Your task to perform on an android device: Go to ESPN.com Image 0: 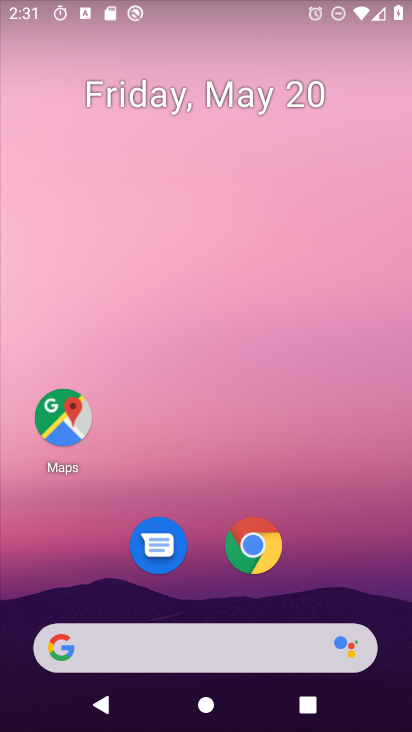
Step 0: drag from (308, 625) to (230, 40)
Your task to perform on an android device: Go to ESPN.com Image 1: 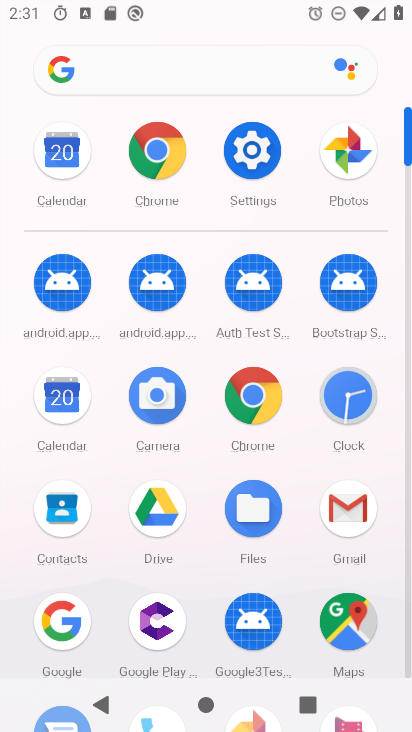
Step 1: click (263, 405)
Your task to perform on an android device: Go to ESPN.com Image 2: 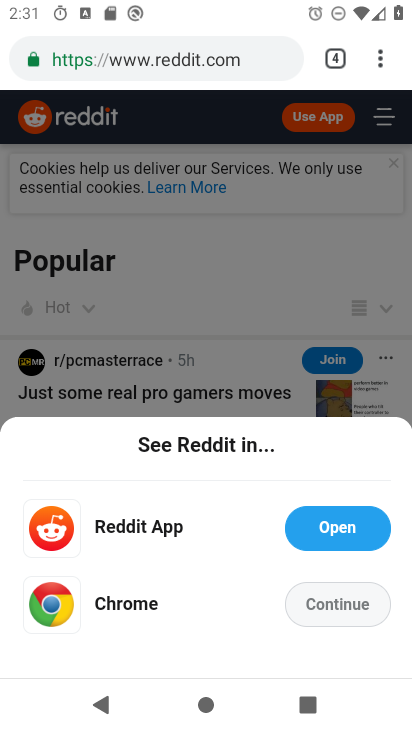
Step 2: click (128, 56)
Your task to perform on an android device: Go to ESPN.com Image 3: 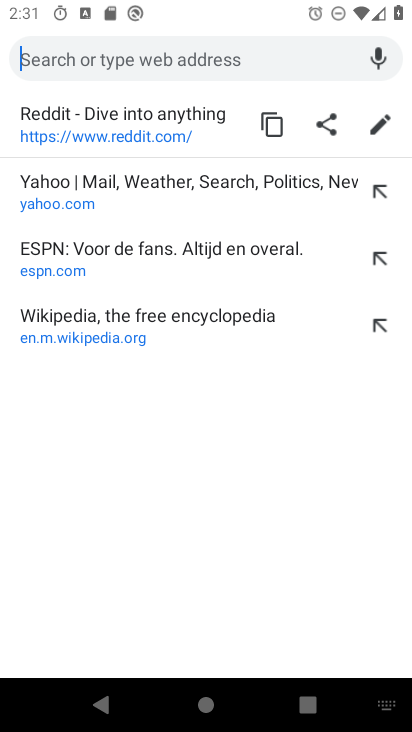
Step 3: type "espn.com"
Your task to perform on an android device: Go to ESPN.com Image 4: 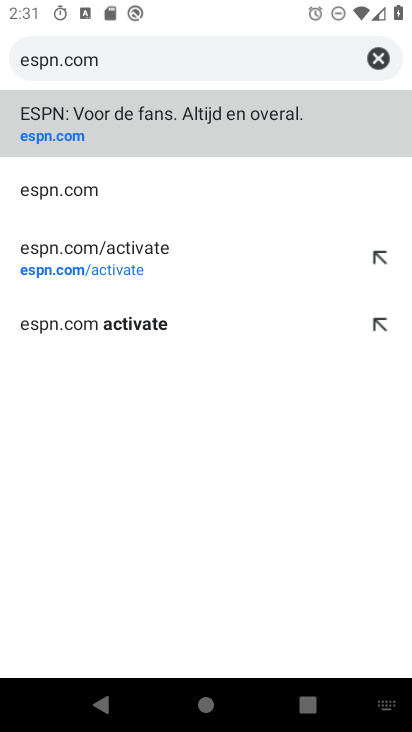
Step 4: click (81, 131)
Your task to perform on an android device: Go to ESPN.com Image 5: 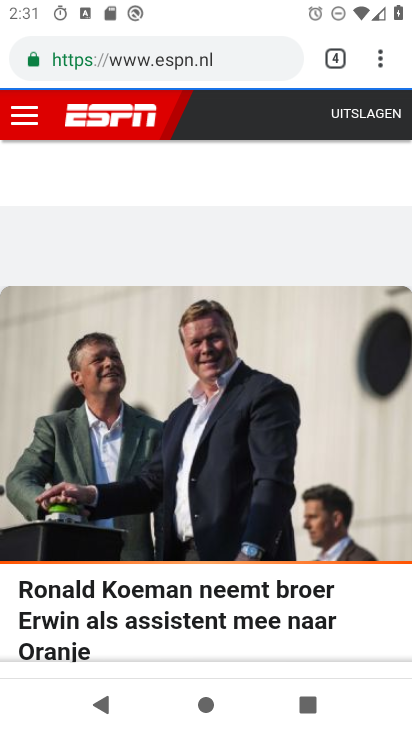
Step 5: task complete